Your task to perform on an android device: turn off wifi Image 0: 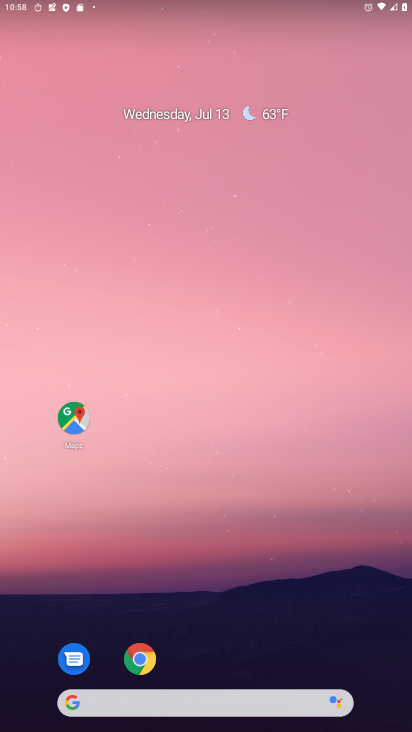
Step 0: drag from (315, 605) to (124, 155)
Your task to perform on an android device: turn off wifi Image 1: 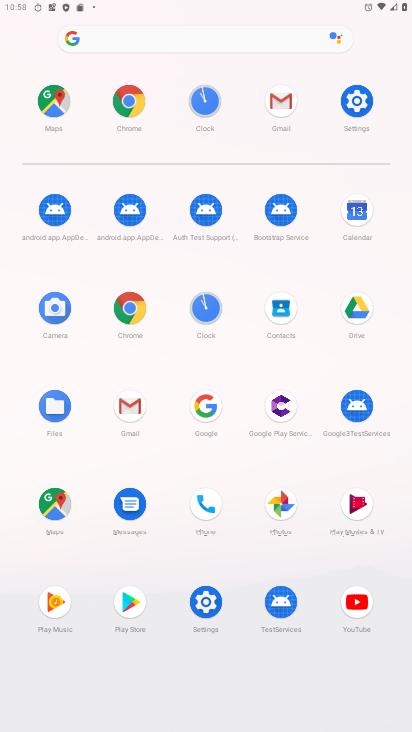
Step 1: click (361, 102)
Your task to perform on an android device: turn off wifi Image 2: 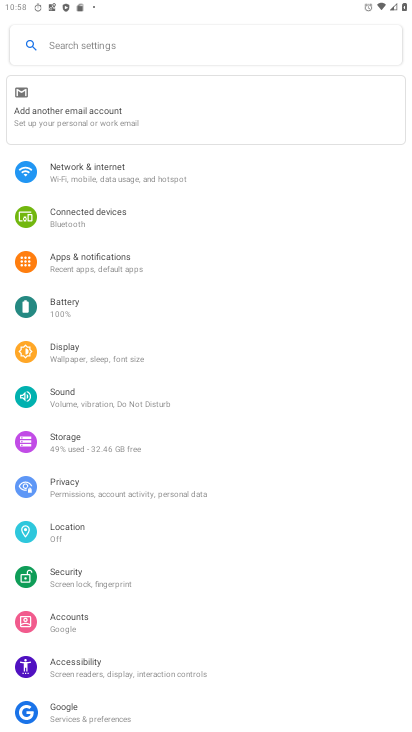
Step 2: click (81, 168)
Your task to perform on an android device: turn off wifi Image 3: 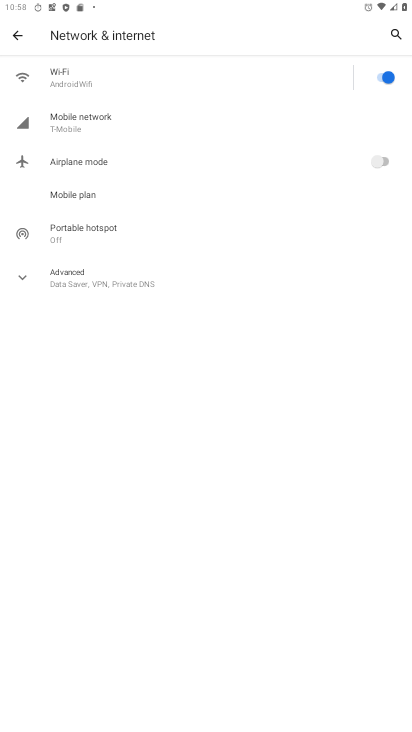
Step 3: click (388, 82)
Your task to perform on an android device: turn off wifi Image 4: 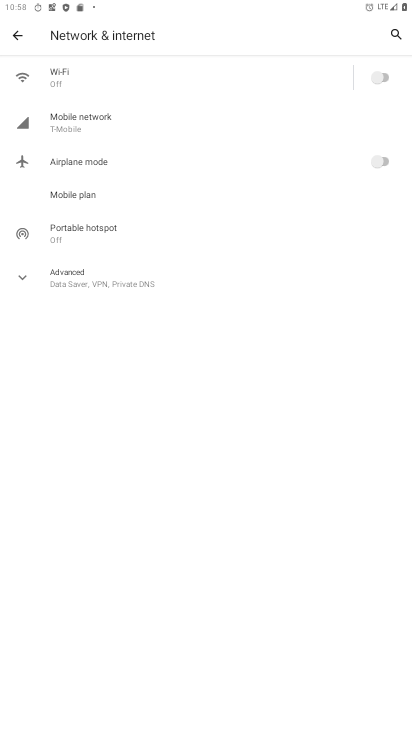
Step 4: task complete